Your task to perform on an android device: change notifications settings Image 0: 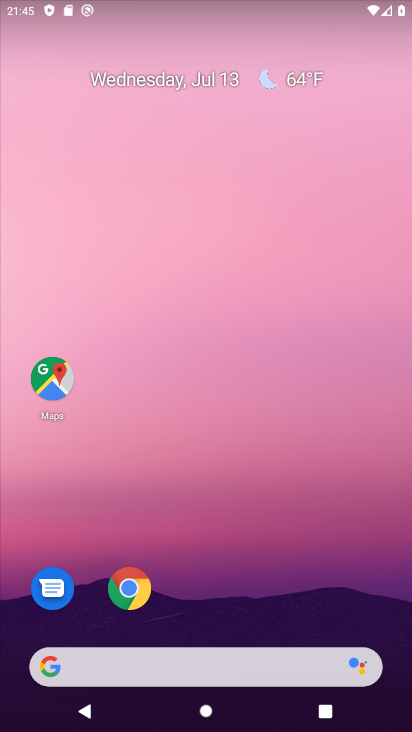
Step 0: drag from (260, 574) to (336, 8)
Your task to perform on an android device: change notifications settings Image 1: 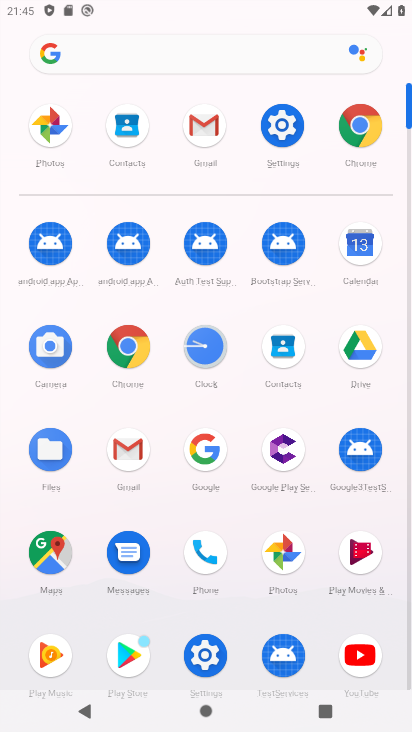
Step 1: click (283, 124)
Your task to perform on an android device: change notifications settings Image 2: 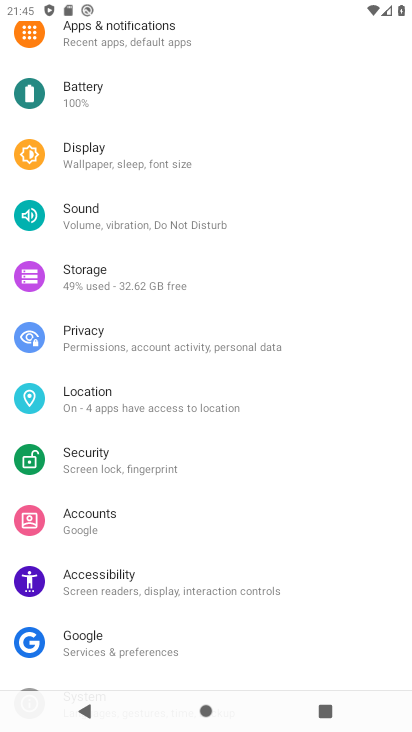
Step 2: drag from (156, 173) to (125, 578)
Your task to perform on an android device: change notifications settings Image 3: 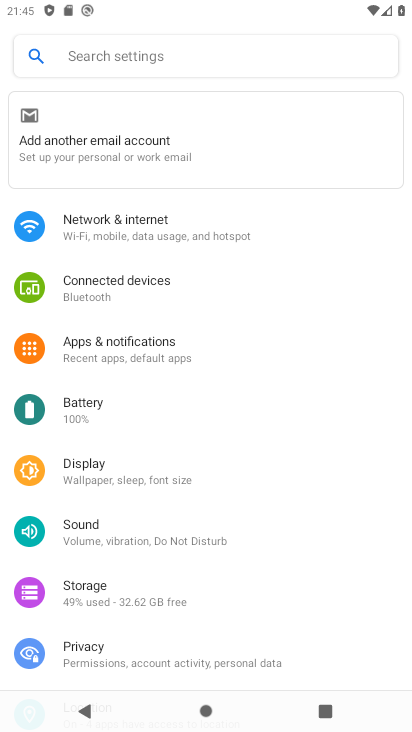
Step 3: click (83, 344)
Your task to perform on an android device: change notifications settings Image 4: 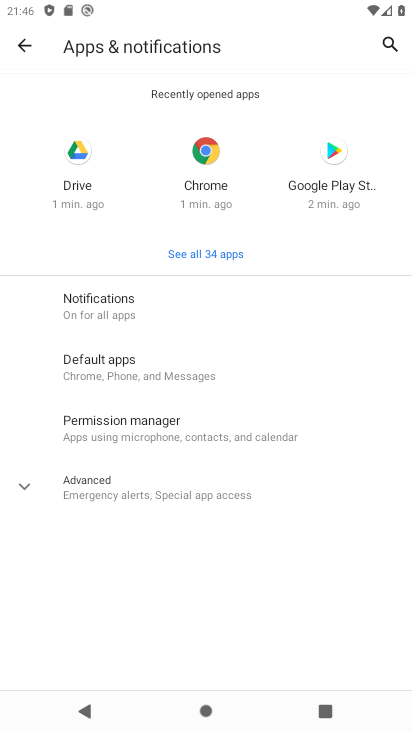
Step 4: click (198, 302)
Your task to perform on an android device: change notifications settings Image 5: 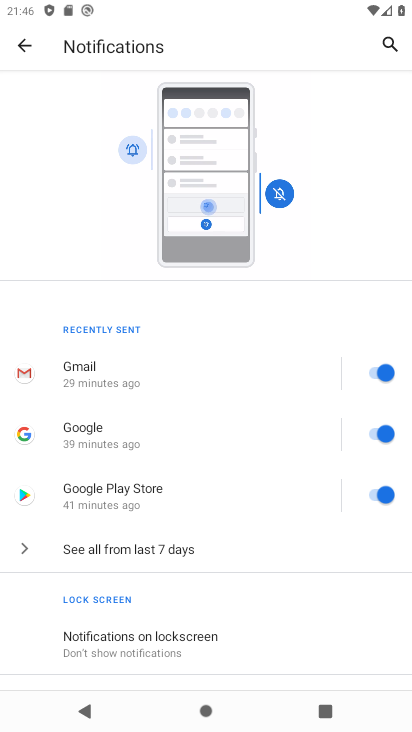
Step 5: drag from (254, 658) to (293, 184)
Your task to perform on an android device: change notifications settings Image 6: 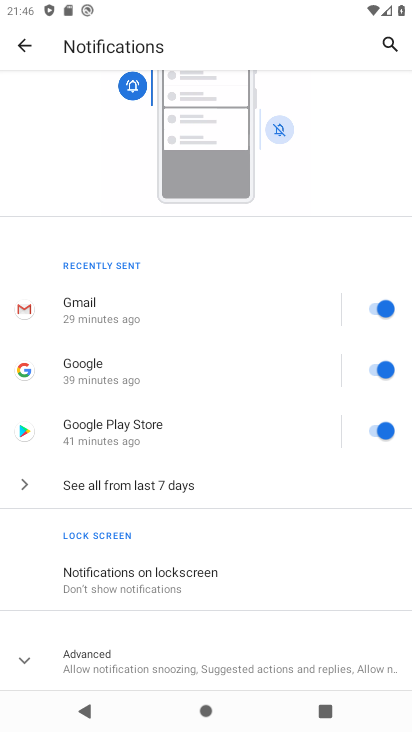
Step 6: click (144, 639)
Your task to perform on an android device: change notifications settings Image 7: 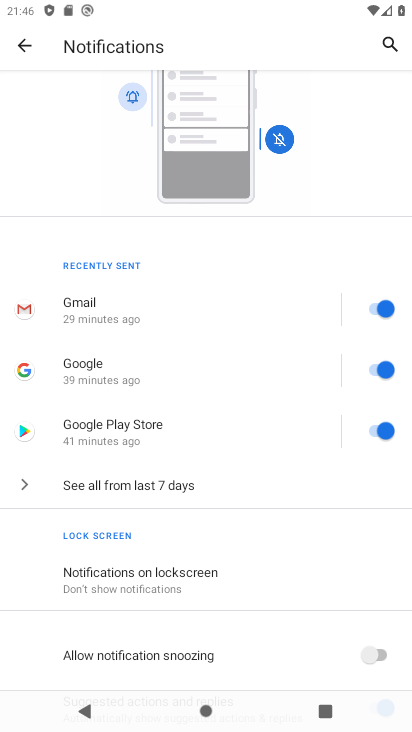
Step 7: click (379, 652)
Your task to perform on an android device: change notifications settings Image 8: 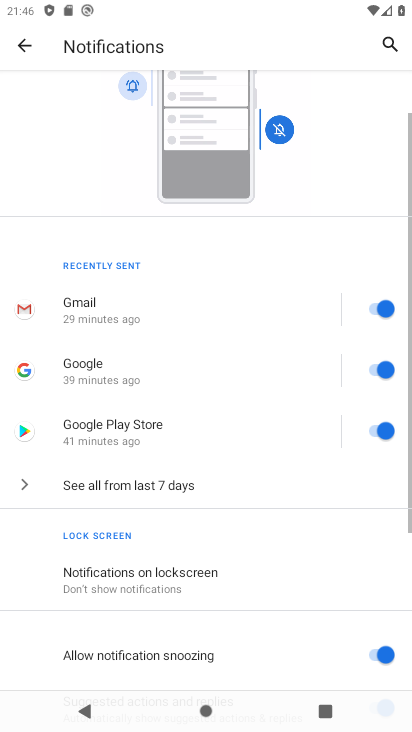
Step 8: task complete